Your task to perform on an android device: open app "HBO Max: Stream TV & Movies" (install if not already installed) Image 0: 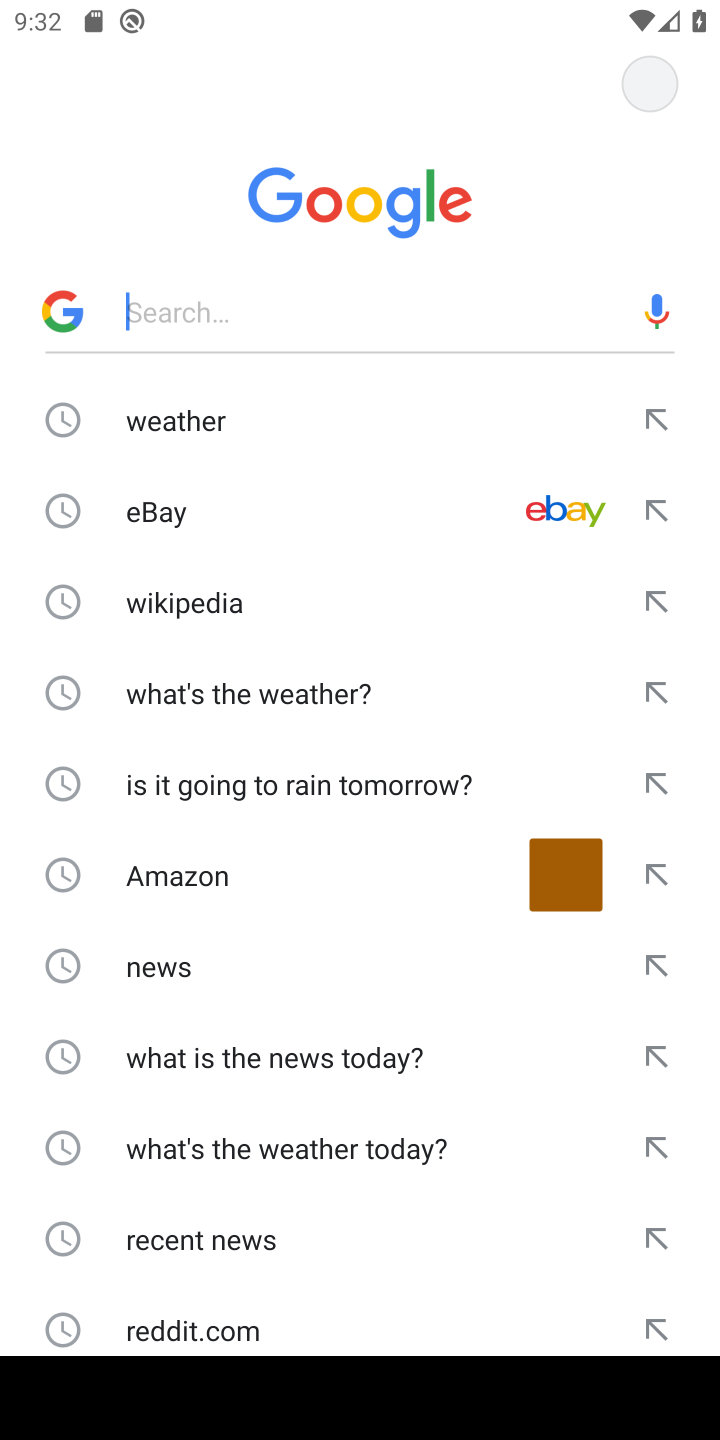
Step 0: press home button
Your task to perform on an android device: open app "HBO Max: Stream TV & Movies" (install if not already installed) Image 1: 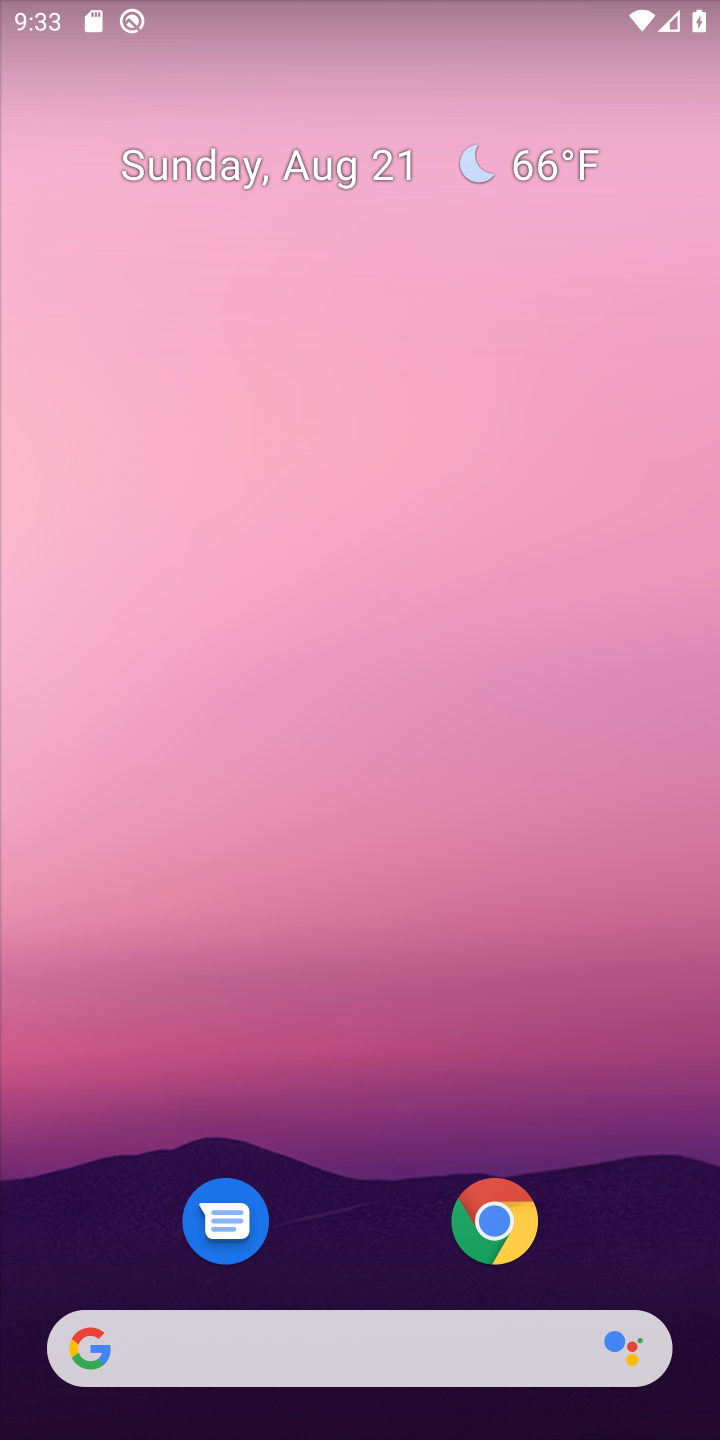
Step 1: drag from (364, 1177) to (368, 420)
Your task to perform on an android device: open app "HBO Max: Stream TV & Movies" (install if not already installed) Image 2: 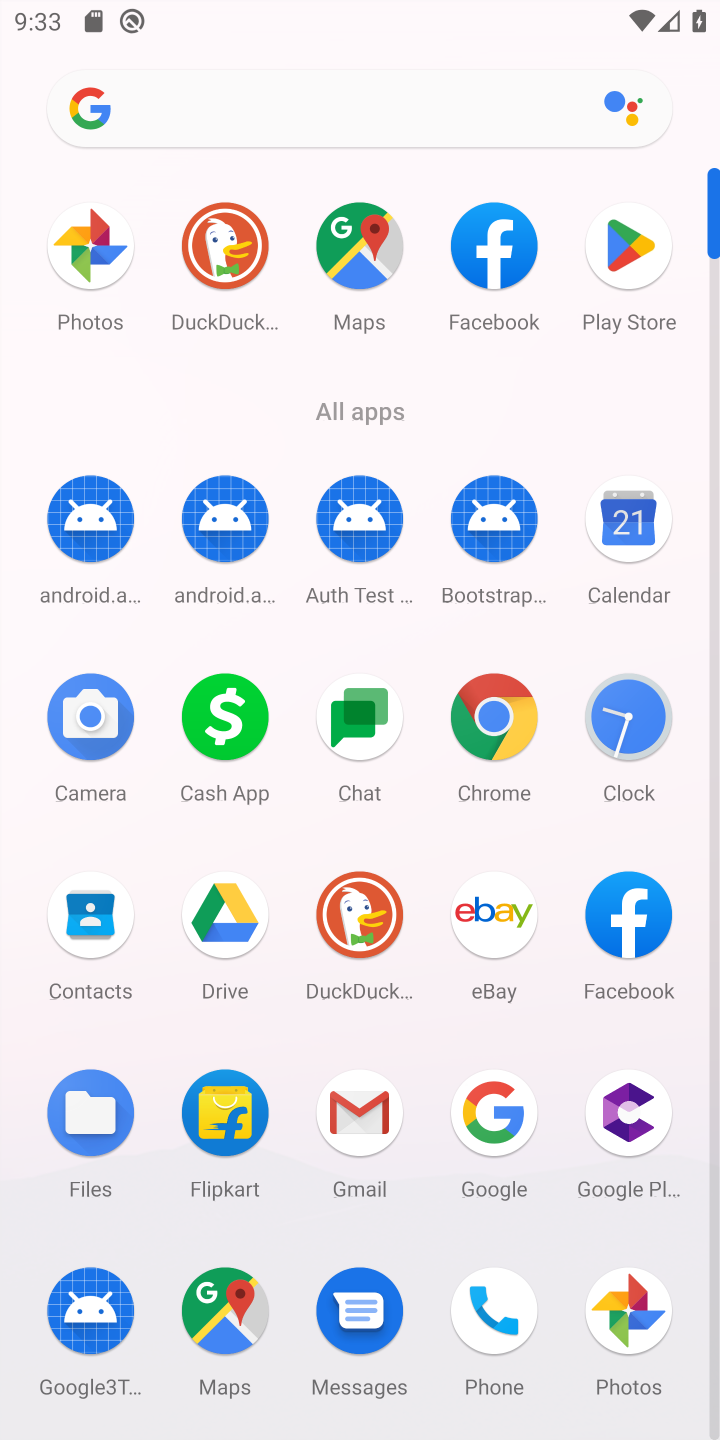
Step 2: click (635, 268)
Your task to perform on an android device: open app "HBO Max: Stream TV & Movies" (install if not already installed) Image 3: 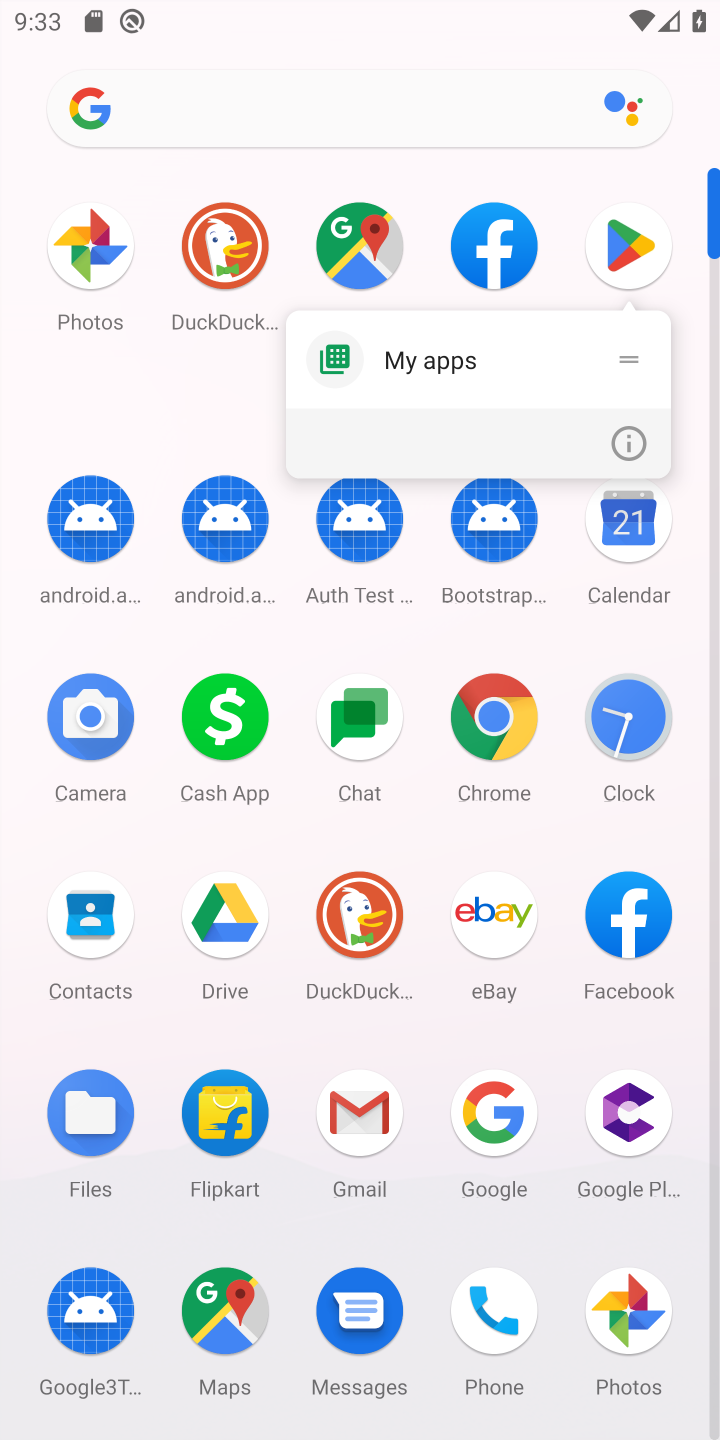
Step 3: click (635, 268)
Your task to perform on an android device: open app "HBO Max: Stream TV & Movies" (install if not already installed) Image 4: 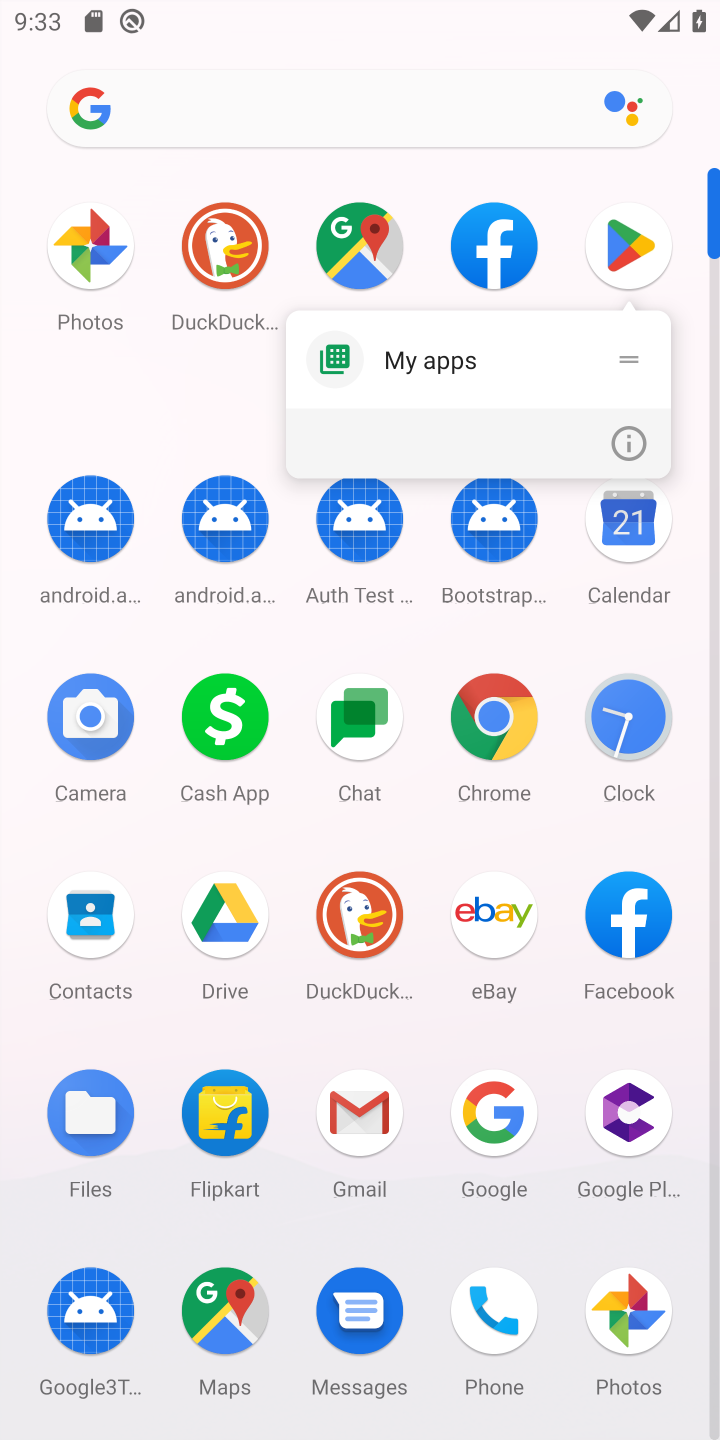
Step 4: click (628, 247)
Your task to perform on an android device: open app "HBO Max: Stream TV & Movies" (install if not already installed) Image 5: 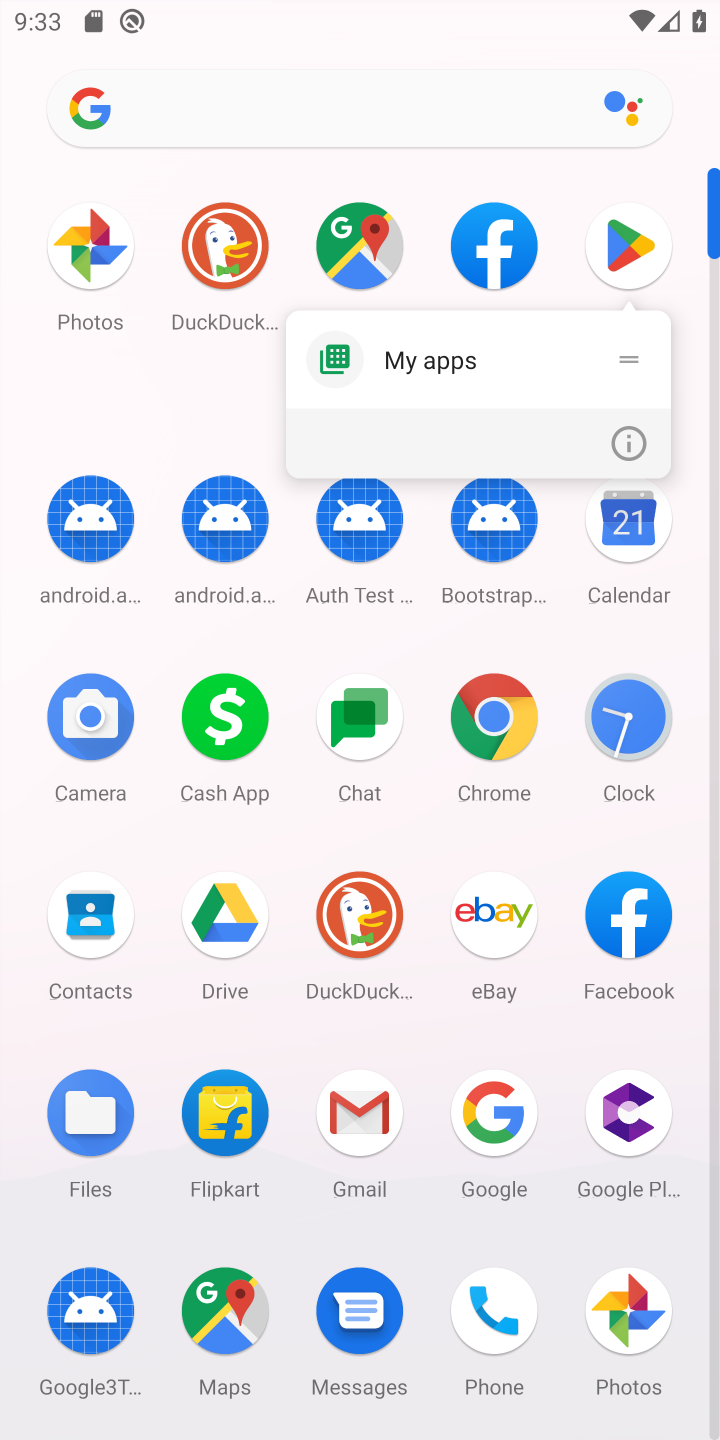
Step 5: click (622, 208)
Your task to perform on an android device: open app "HBO Max: Stream TV & Movies" (install if not already installed) Image 6: 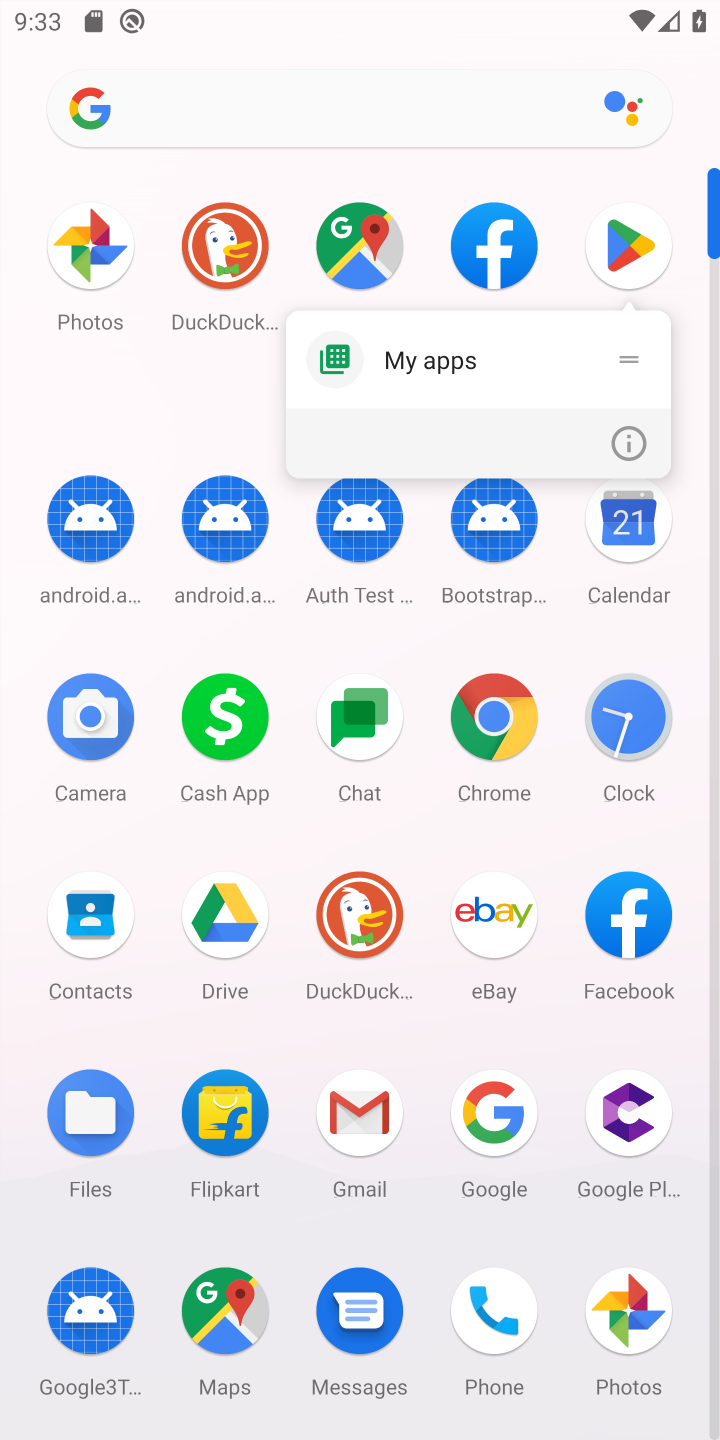
Step 6: click (622, 208)
Your task to perform on an android device: open app "HBO Max: Stream TV & Movies" (install if not already installed) Image 7: 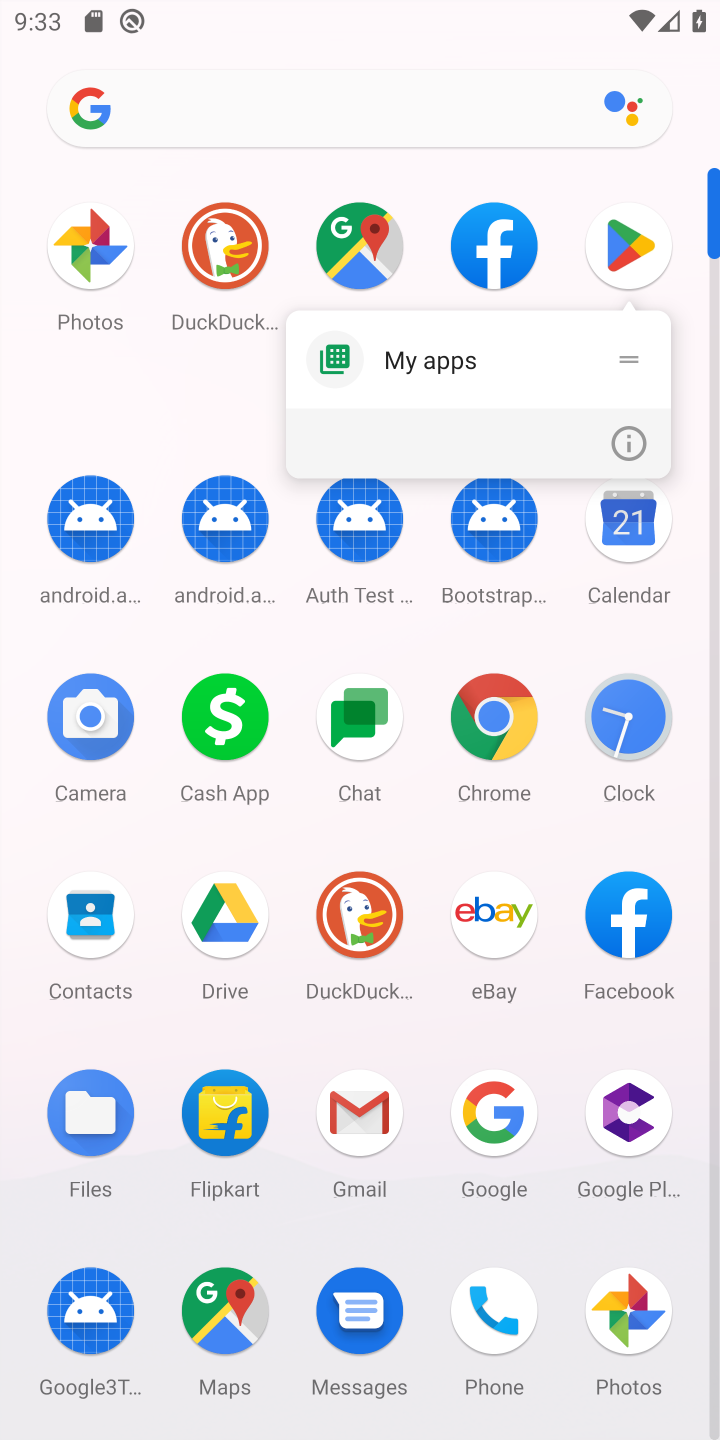
Step 7: click (628, 260)
Your task to perform on an android device: open app "HBO Max: Stream TV & Movies" (install if not already installed) Image 8: 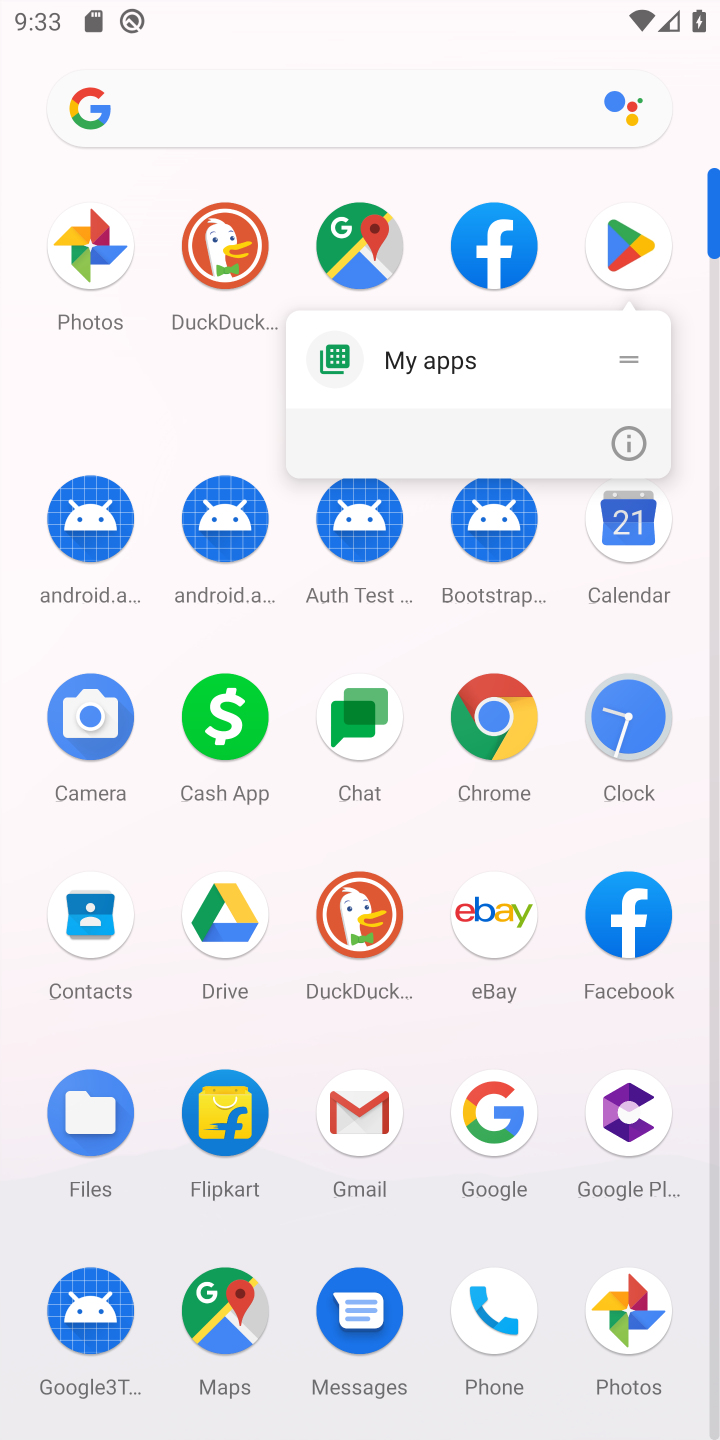
Step 8: click (628, 260)
Your task to perform on an android device: open app "HBO Max: Stream TV & Movies" (install if not already installed) Image 9: 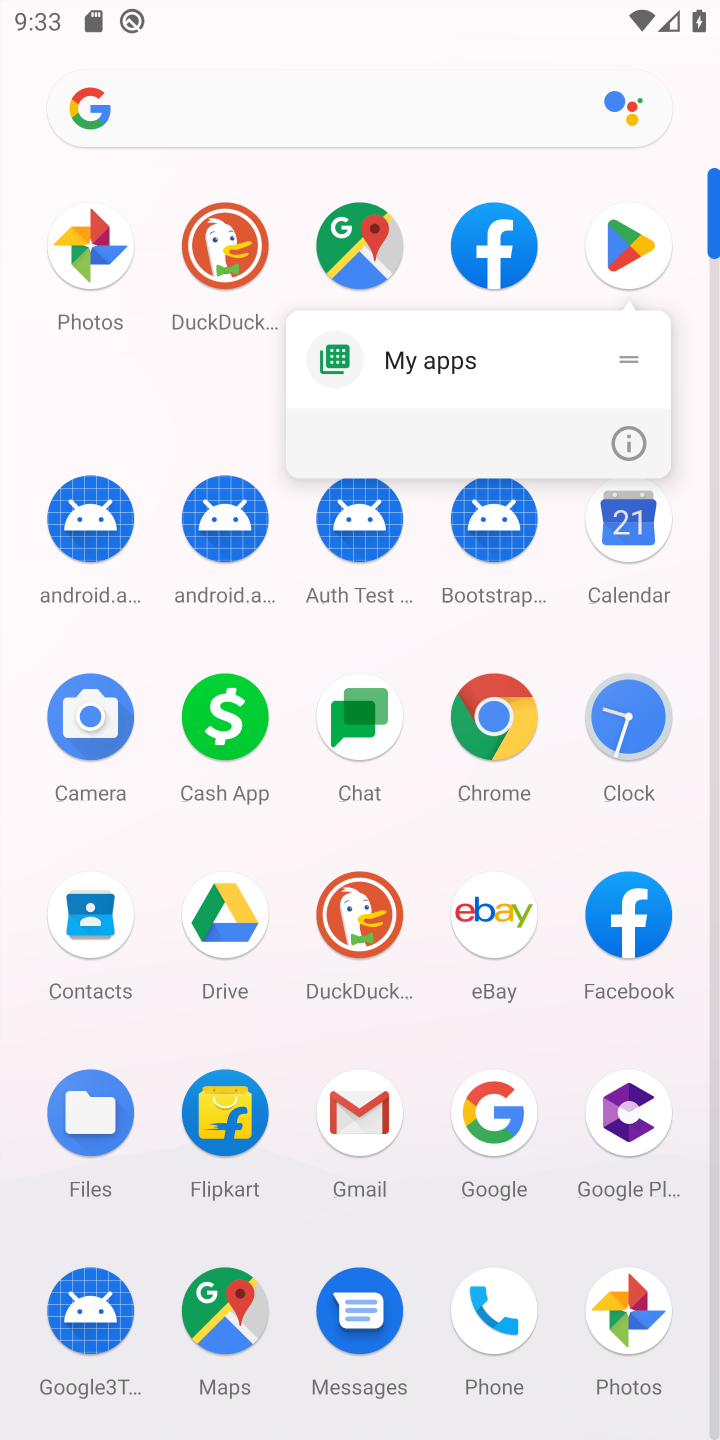
Step 9: click (628, 260)
Your task to perform on an android device: open app "HBO Max: Stream TV & Movies" (install if not already installed) Image 10: 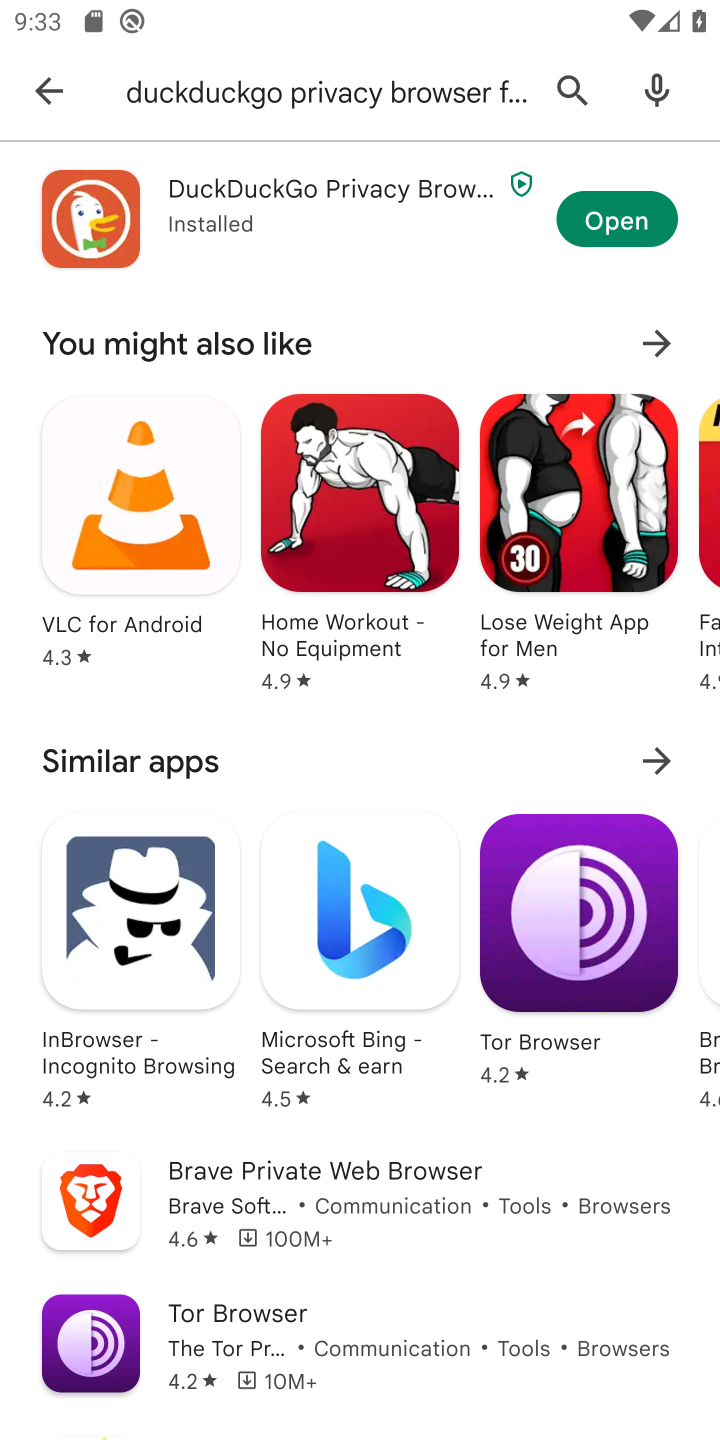
Step 10: click (554, 91)
Your task to perform on an android device: open app "HBO Max: Stream TV & Movies" (install if not already installed) Image 11: 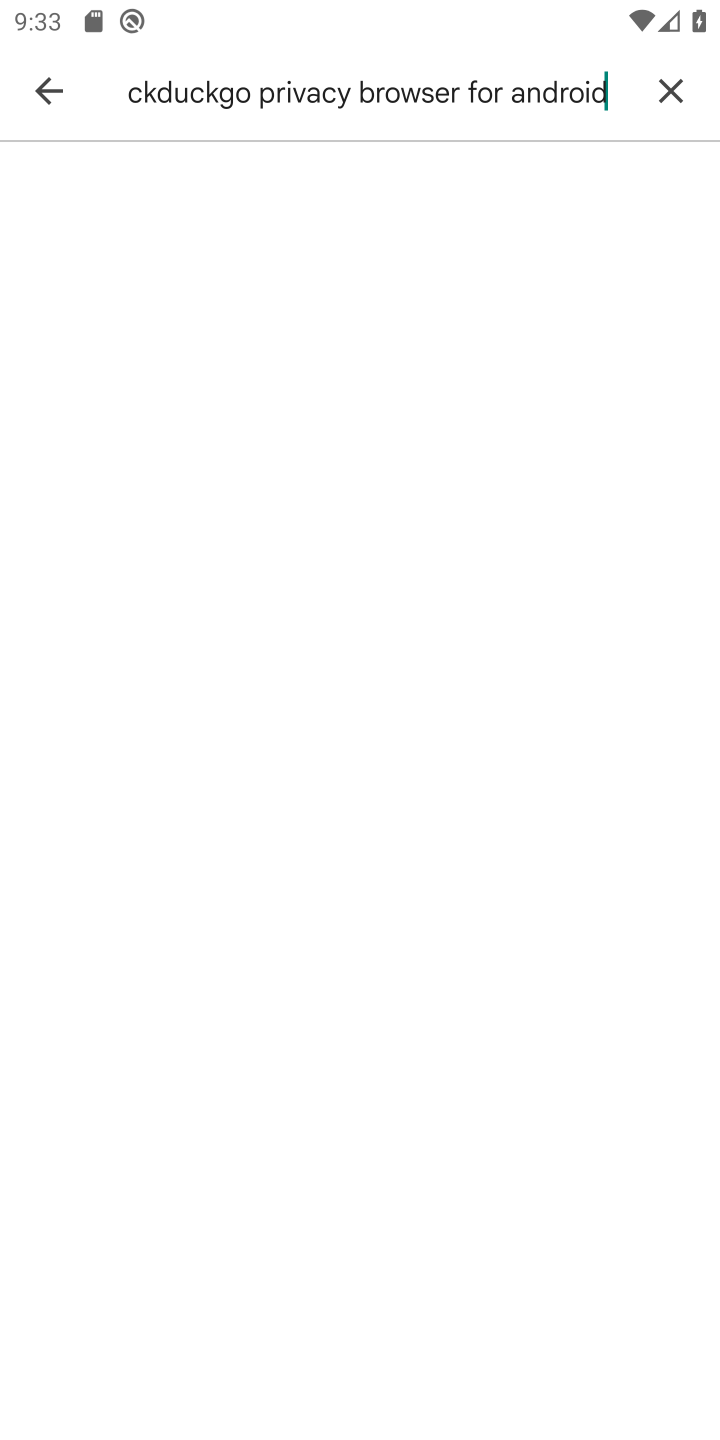
Step 11: click (670, 100)
Your task to perform on an android device: open app "HBO Max: Stream TV & Movies" (install if not already installed) Image 12: 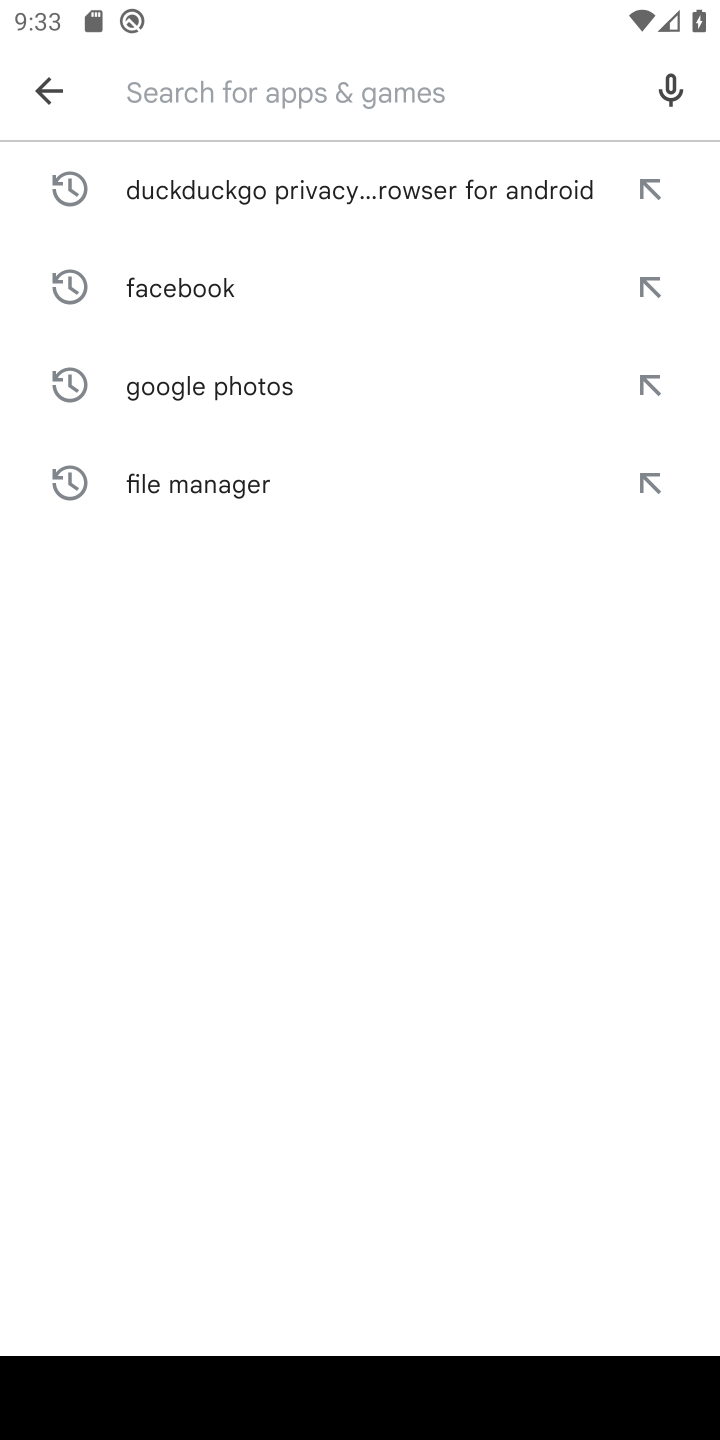
Step 12: type "HBO Max: Stream TV & Movies"
Your task to perform on an android device: open app "HBO Max: Stream TV & Movies" (install if not already installed) Image 13: 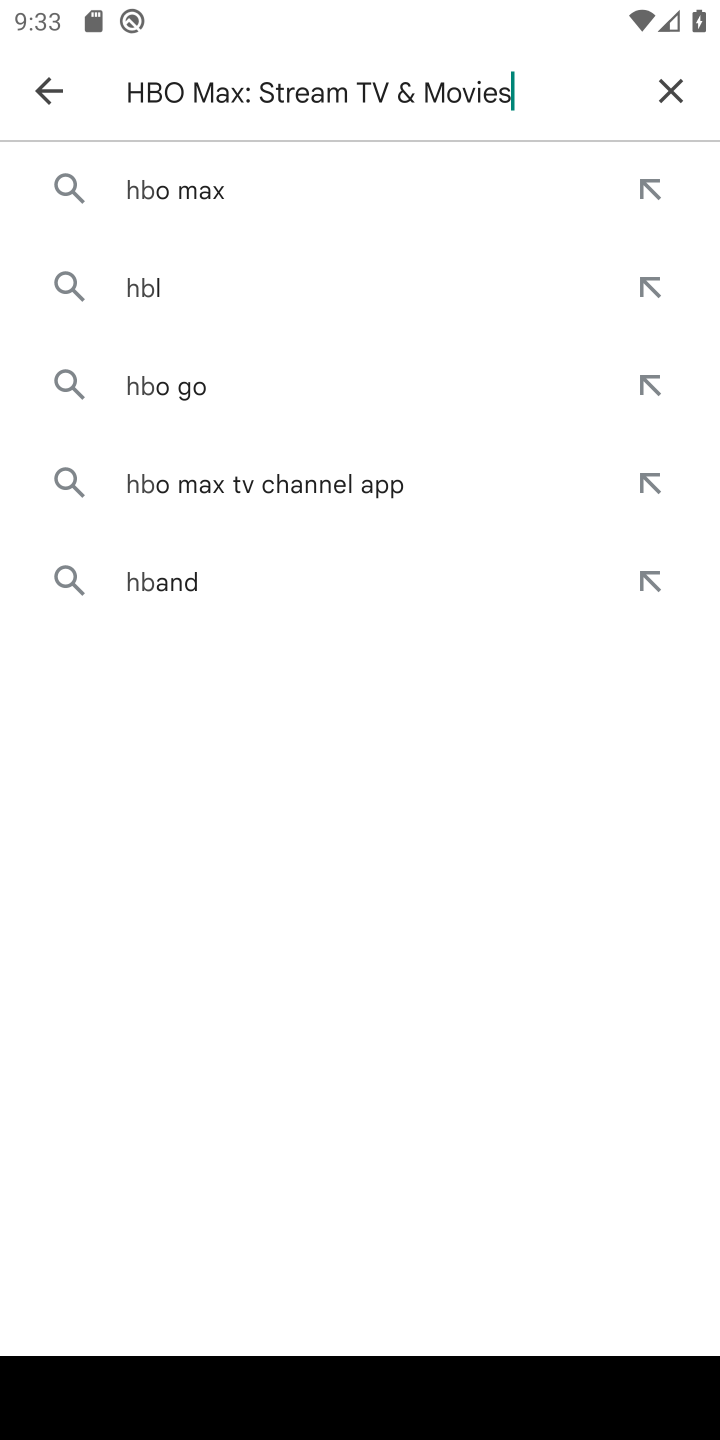
Step 13: type ""
Your task to perform on an android device: open app "HBO Max: Stream TV & Movies" (install if not already installed) Image 14: 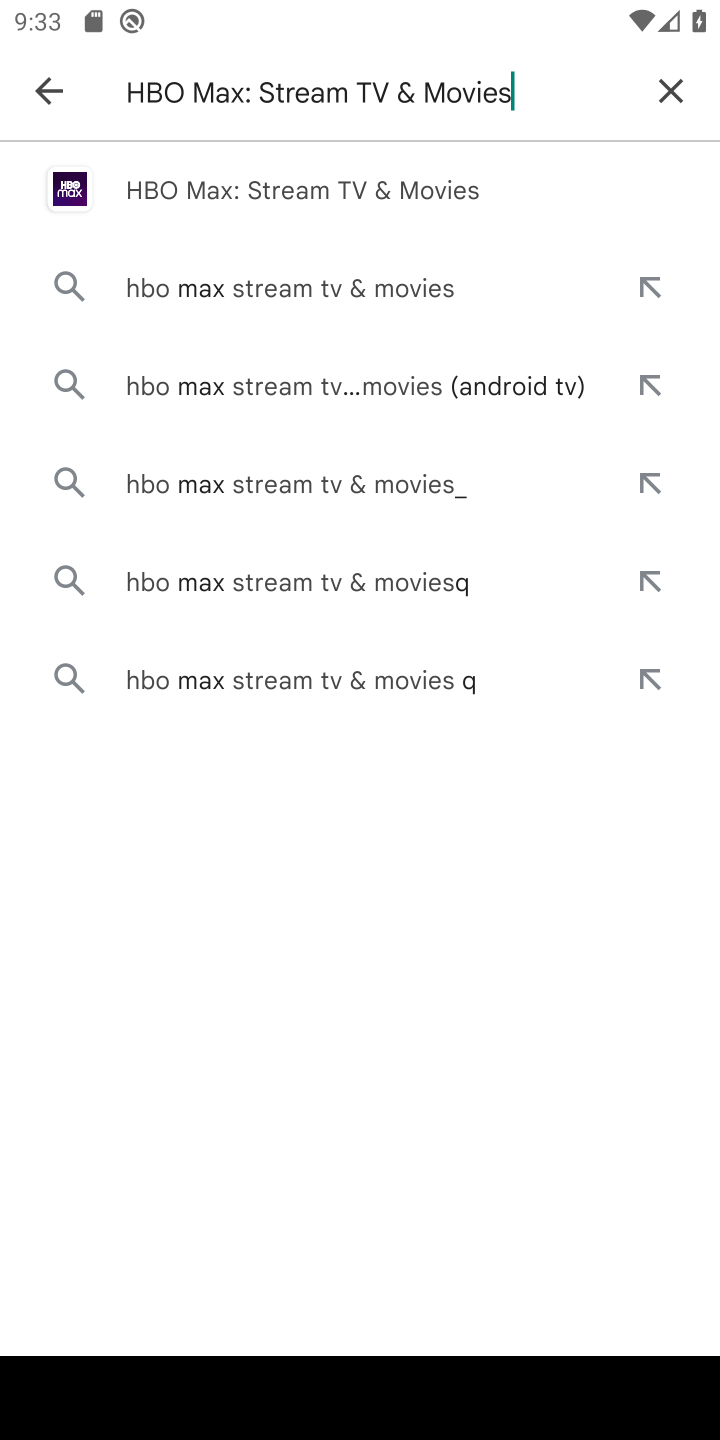
Step 14: click (187, 178)
Your task to perform on an android device: open app "HBO Max: Stream TV & Movies" (install if not already installed) Image 15: 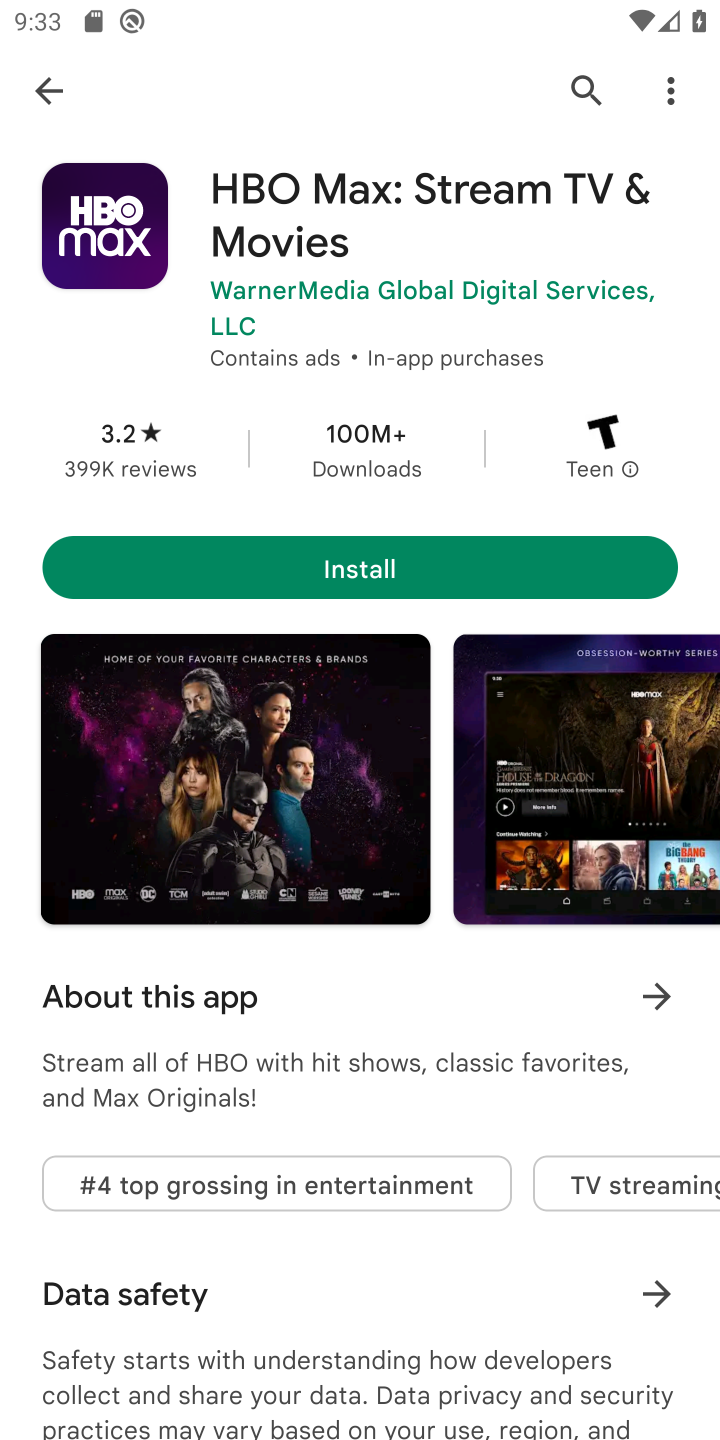
Step 15: click (361, 586)
Your task to perform on an android device: open app "HBO Max: Stream TV & Movies" (install if not already installed) Image 16: 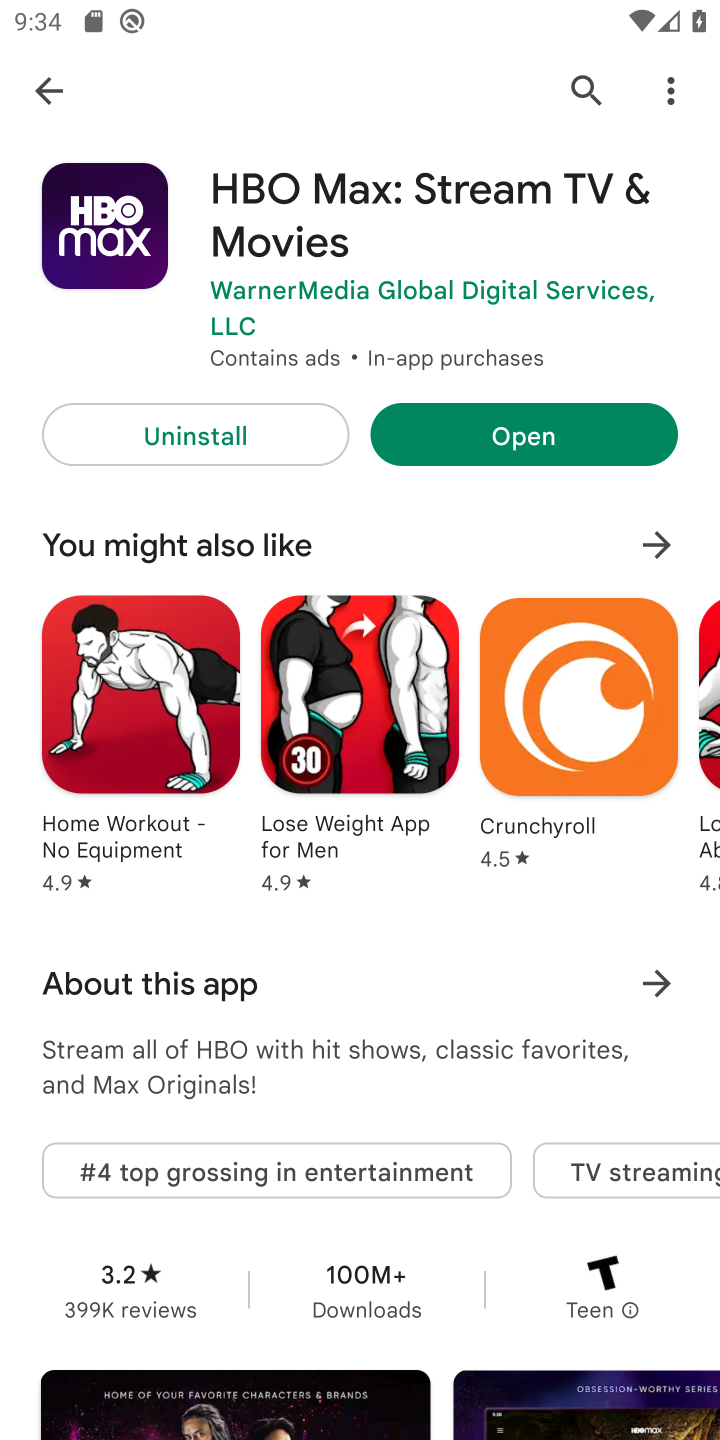
Step 16: click (547, 407)
Your task to perform on an android device: open app "HBO Max: Stream TV & Movies" (install if not already installed) Image 17: 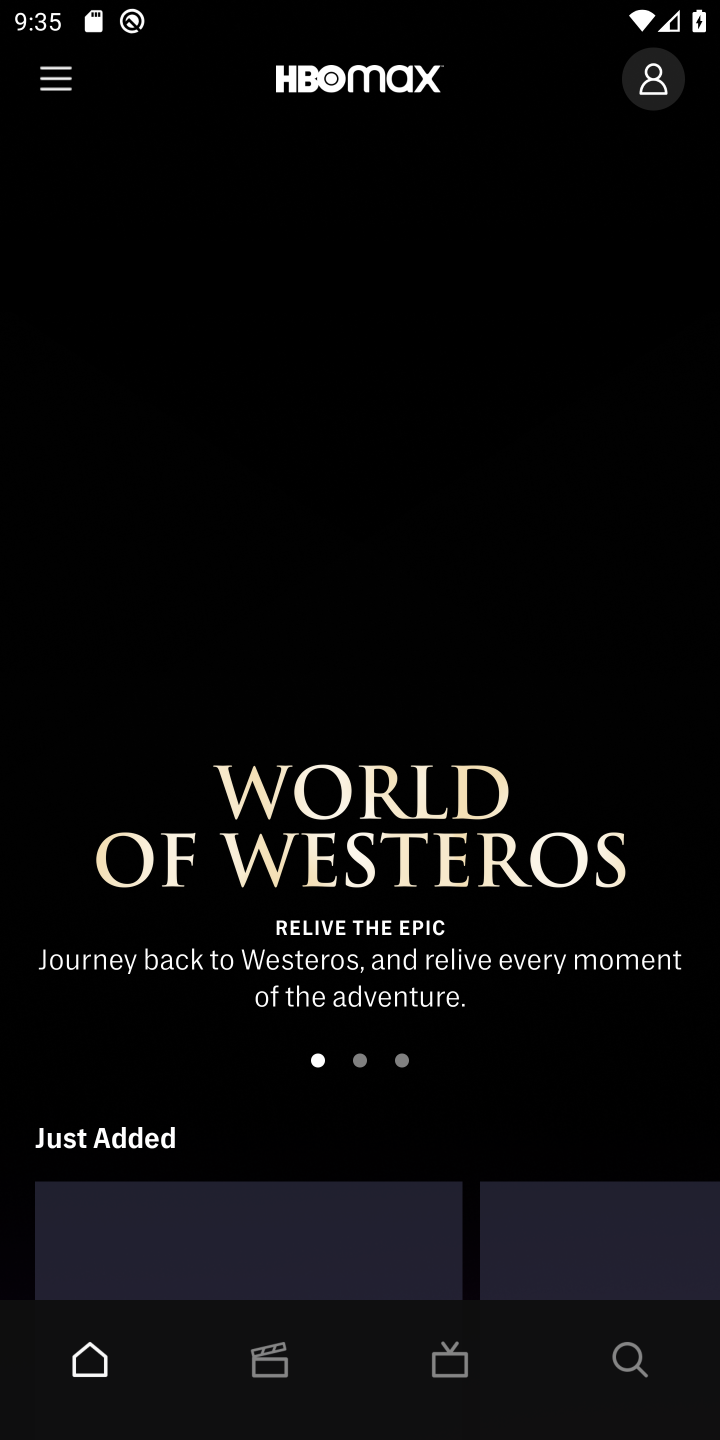
Step 17: task complete